Your task to perform on an android device: Go to display settings Image 0: 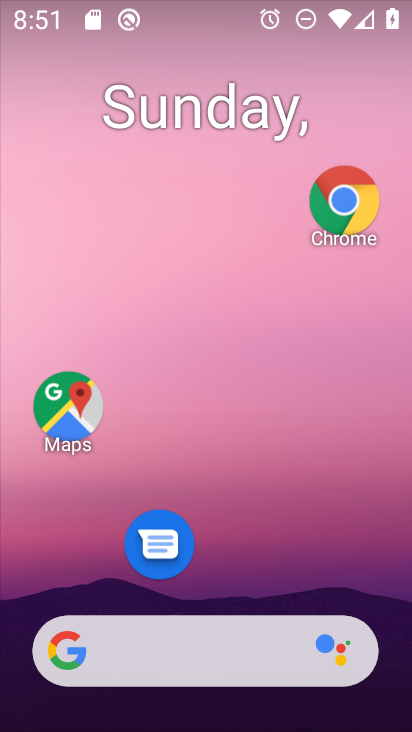
Step 0: drag from (241, 284) to (213, 43)
Your task to perform on an android device: Go to display settings Image 1: 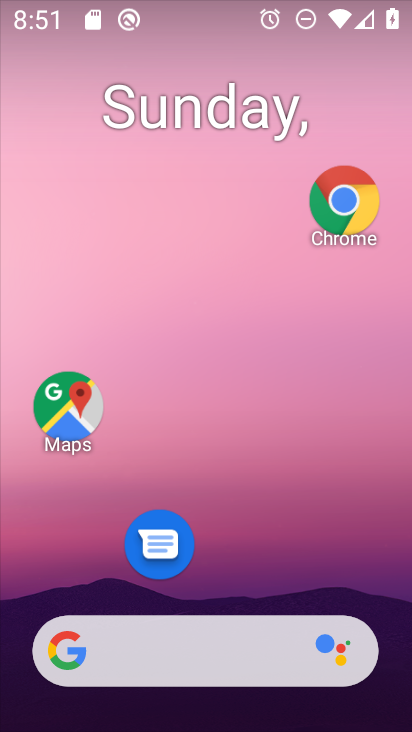
Step 1: drag from (244, 549) to (183, 23)
Your task to perform on an android device: Go to display settings Image 2: 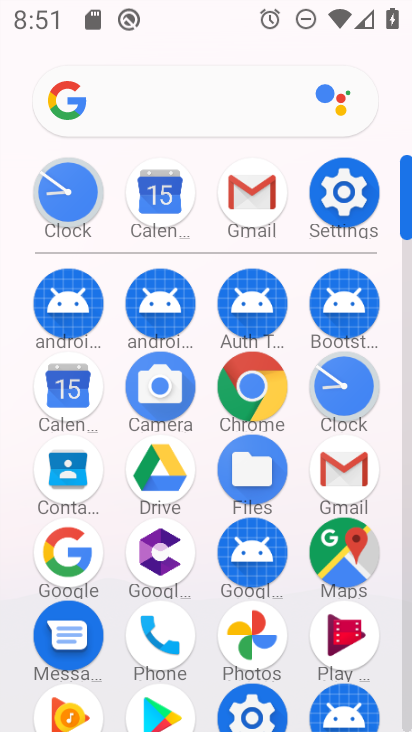
Step 2: click (338, 189)
Your task to perform on an android device: Go to display settings Image 3: 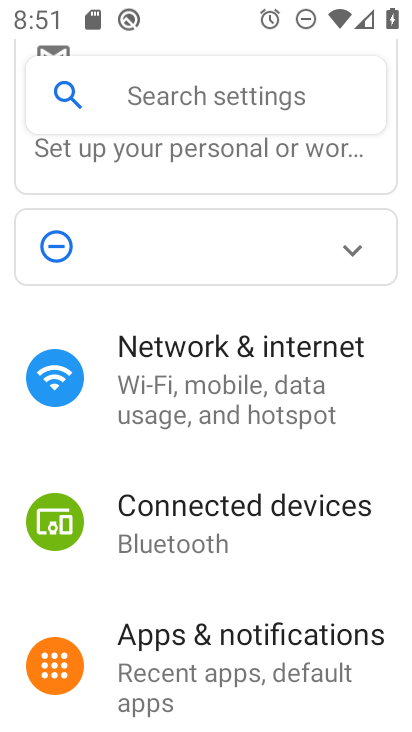
Step 3: drag from (246, 598) to (249, 330)
Your task to perform on an android device: Go to display settings Image 4: 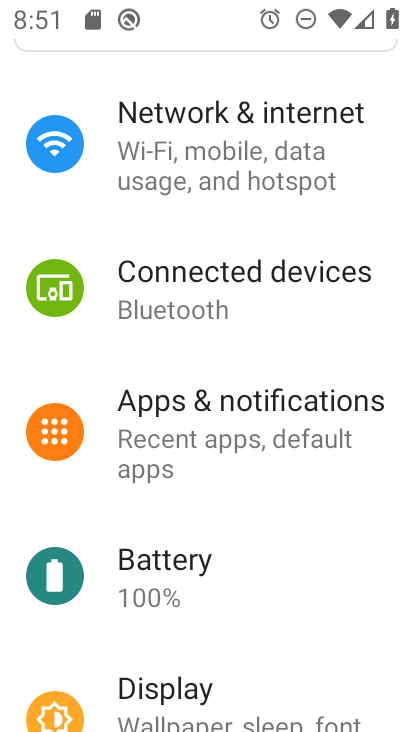
Step 4: drag from (241, 683) to (231, 483)
Your task to perform on an android device: Go to display settings Image 5: 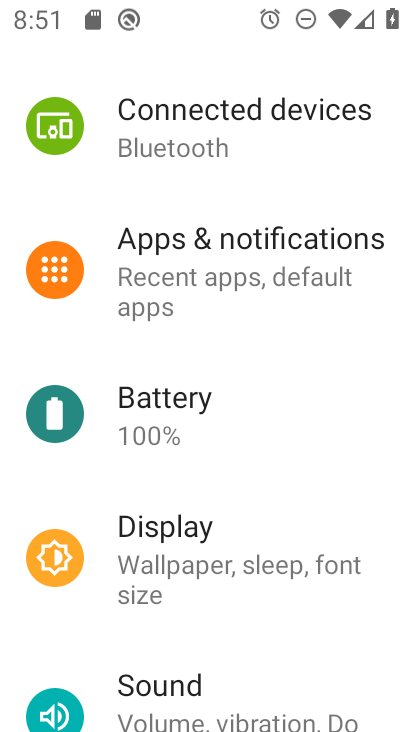
Step 5: click (229, 578)
Your task to perform on an android device: Go to display settings Image 6: 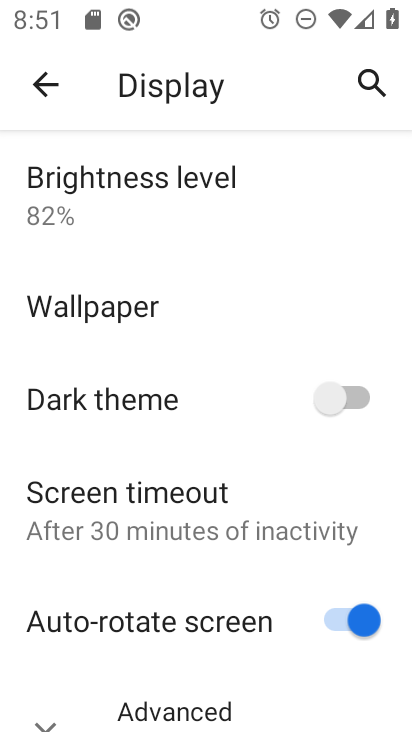
Step 6: task complete